Your task to perform on an android device: Open display settings Image 0: 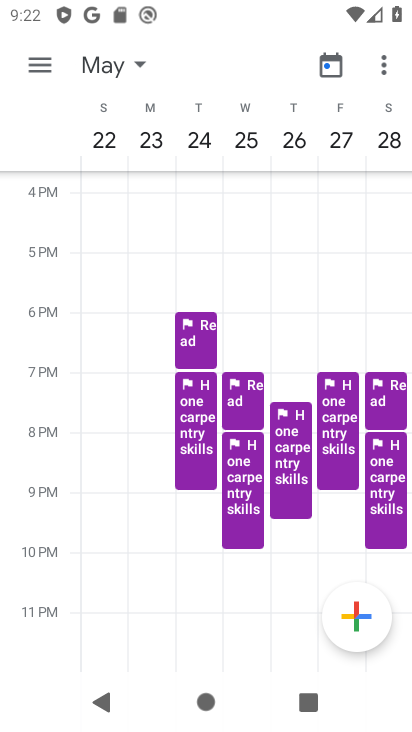
Step 0: press home button
Your task to perform on an android device: Open display settings Image 1: 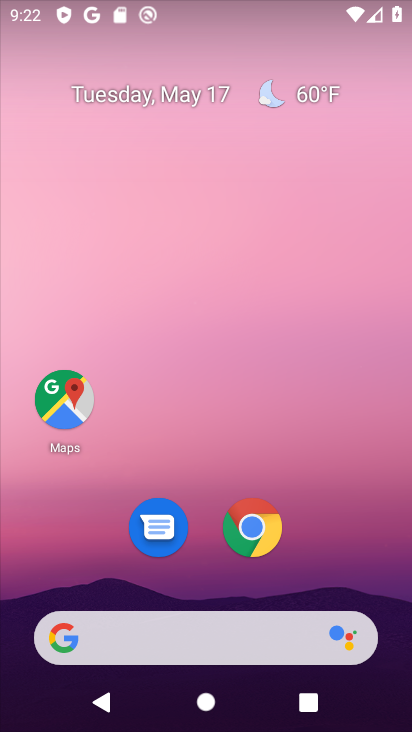
Step 1: drag from (194, 582) to (243, 51)
Your task to perform on an android device: Open display settings Image 2: 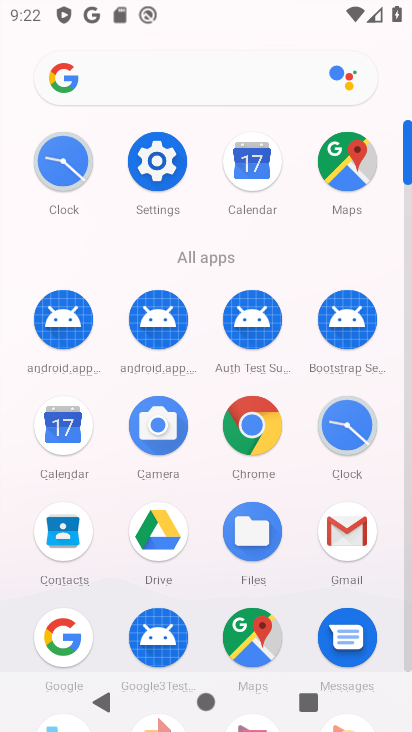
Step 2: click (170, 143)
Your task to perform on an android device: Open display settings Image 3: 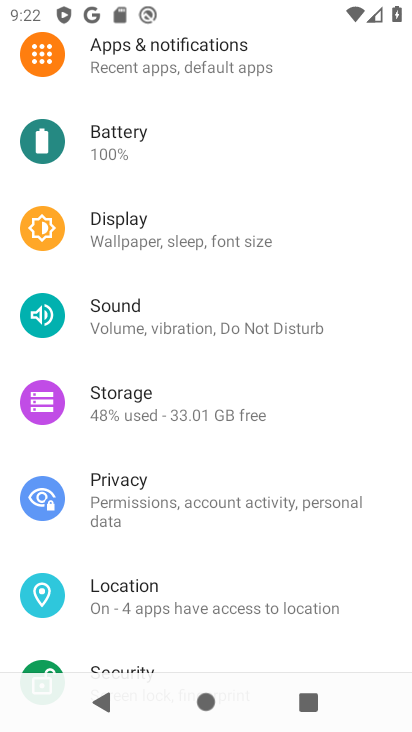
Step 3: click (148, 216)
Your task to perform on an android device: Open display settings Image 4: 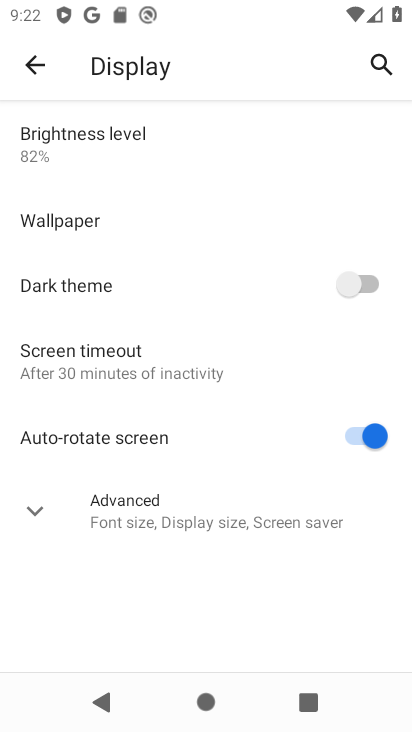
Step 4: task complete